Your task to perform on an android device: toggle sleep mode Image 0: 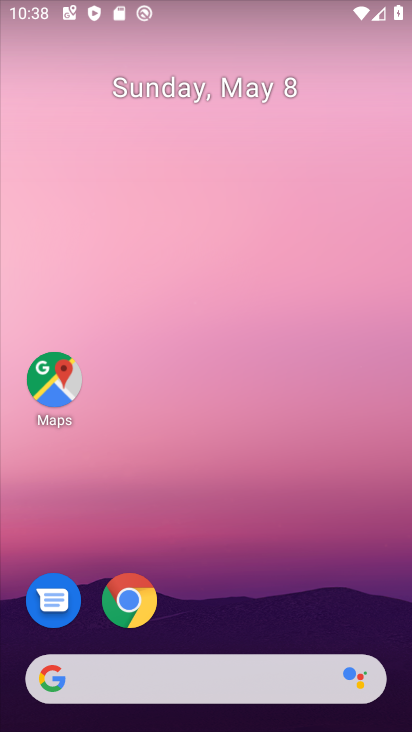
Step 0: drag from (27, 727) to (409, 286)
Your task to perform on an android device: toggle sleep mode Image 1: 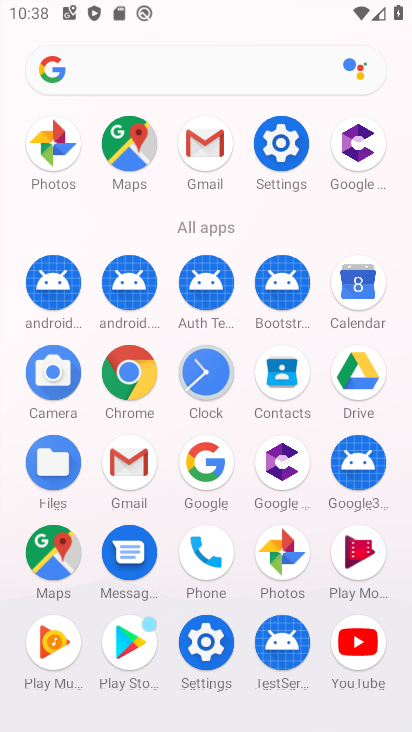
Step 1: click (287, 168)
Your task to perform on an android device: toggle sleep mode Image 2: 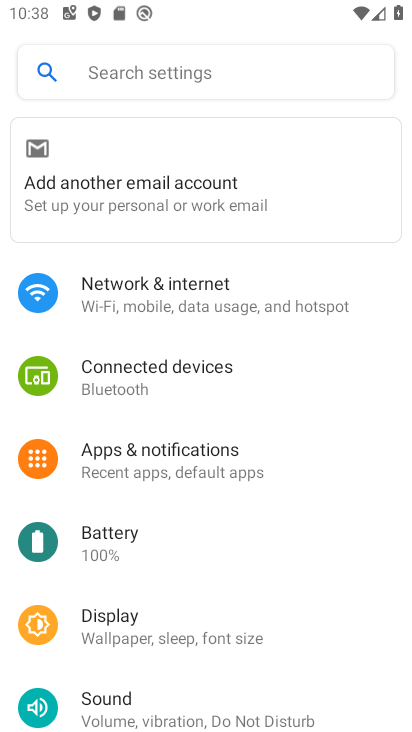
Step 2: task complete